Your task to perform on an android device: turn off location history Image 0: 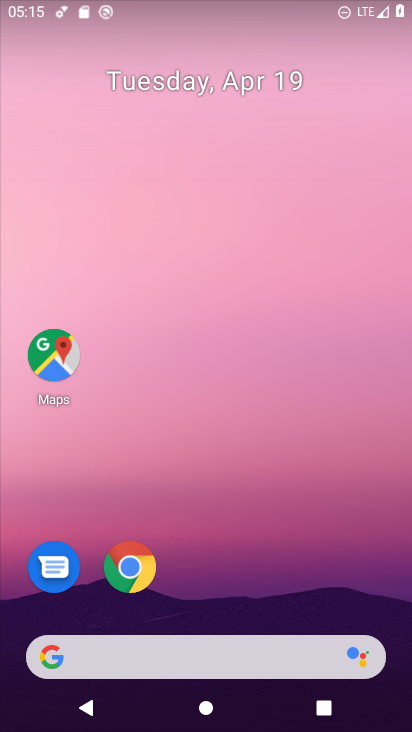
Step 0: drag from (306, 435) to (286, 49)
Your task to perform on an android device: turn off location history Image 1: 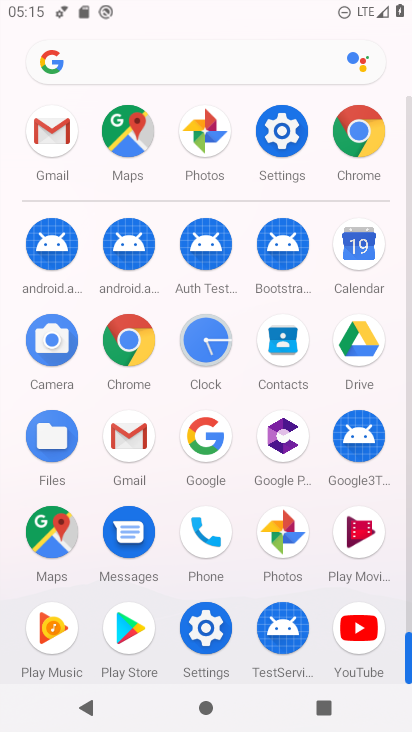
Step 1: click (215, 630)
Your task to perform on an android device: turn off location history Image 2: 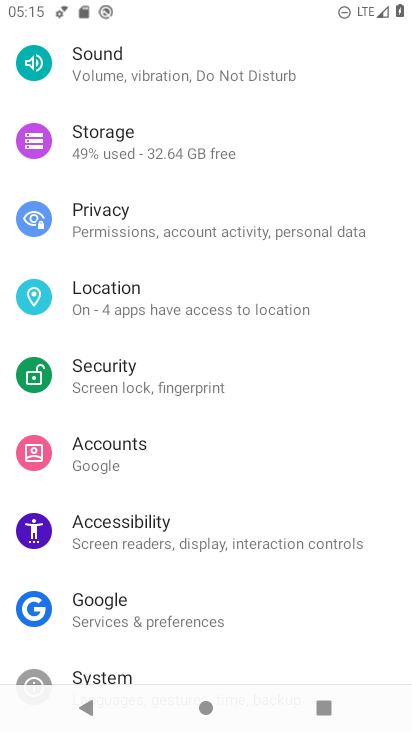
Step 2: drag from (295, 620) to (268, 527)
Your task to perform on an android device: turn off location history Image 3: 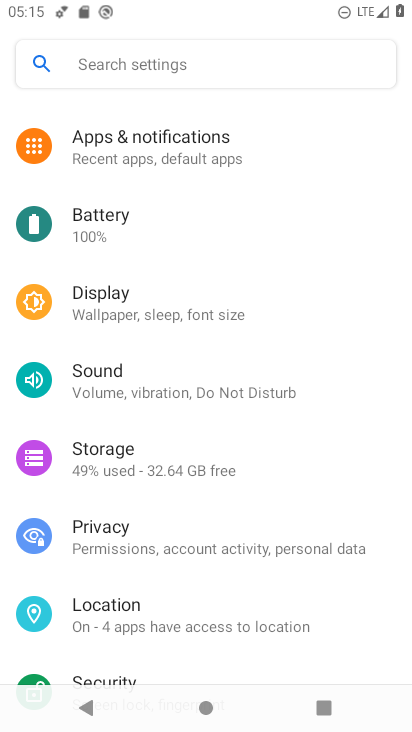
Step 3: click (173, 616)
Your task to perform on an android device: turn off location history Image 4: 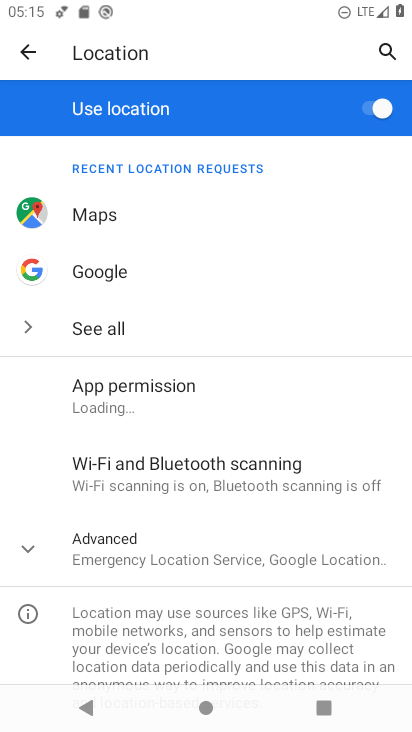
Step 4: click (169, 543)
Your task to perform on an android device: turn off location history Image 5: 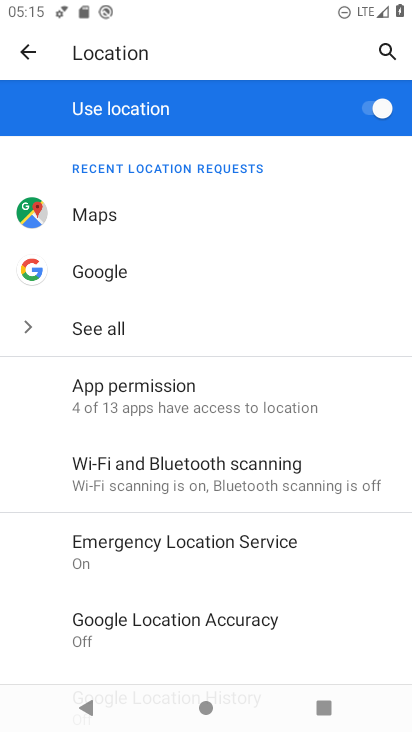
Step 5: click (252, 636)
Your task to perform on an android device: turn off location history Image 6: 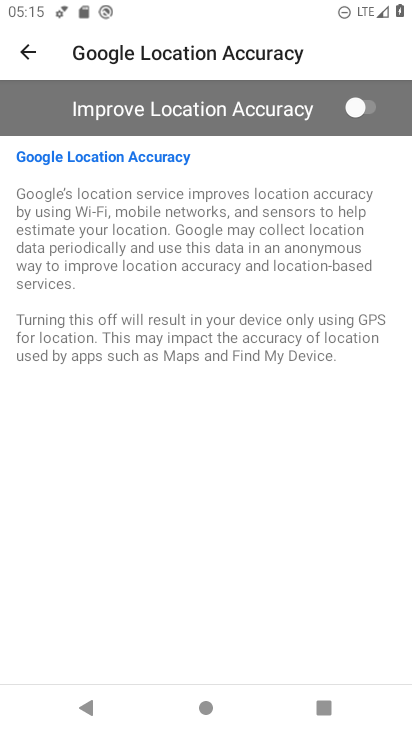
Step 6: click (31, 60)
Your task to perform on an android device: turn off location history Image 7: 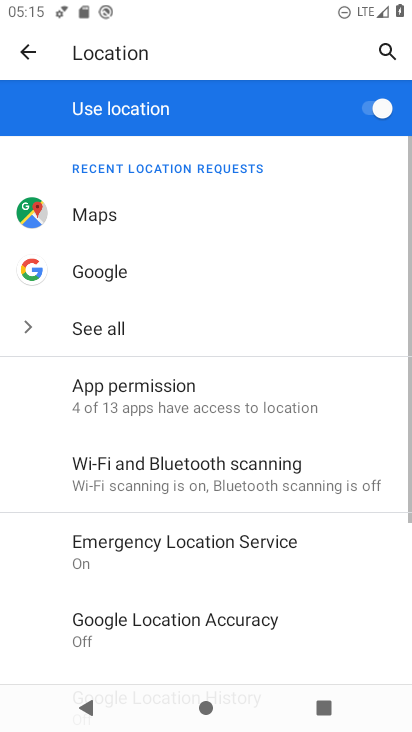
Step 7: drag from (255, 589) to (284, 177)
Your task to perform on an android device: turn off location history Image 8: 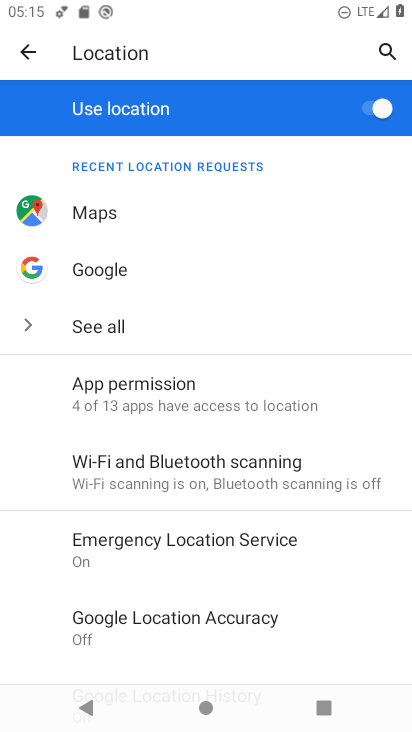
Step 8: drag from (261, 639) to (295, 209)
Your task to perform on an android device: turn off location history Image 9: 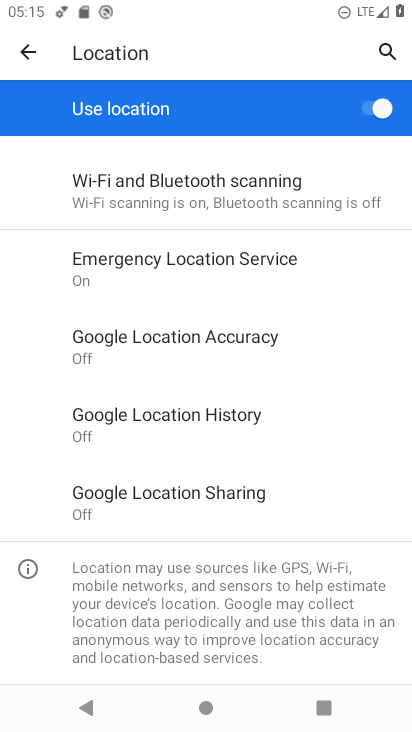
Step 9: click (235, 427)
Your task to perform on an android device: turn off location history Image 10: 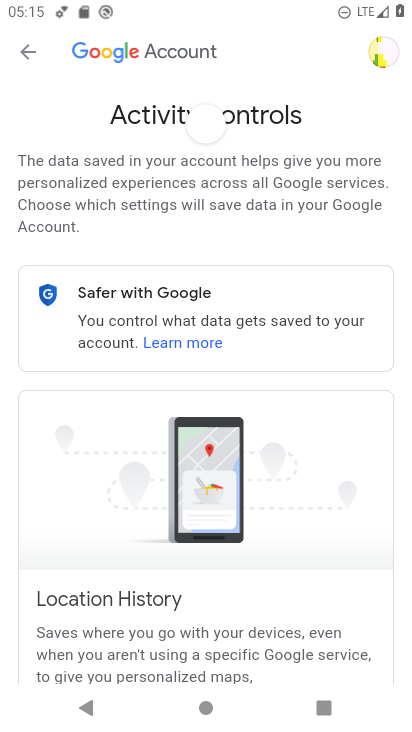
Step 10: drag from (294, 606) to (349, 99)
Your task to perform on an android device: turn off location history Image 11: 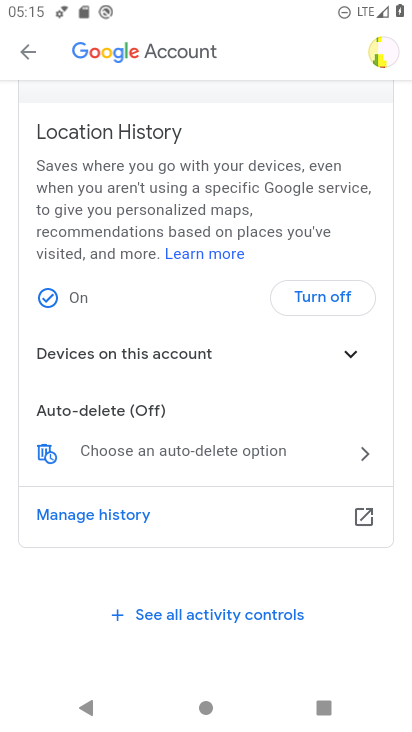
Step 11: click (328, 291)
Your task to perform on an android device: turn off location history Image 12: 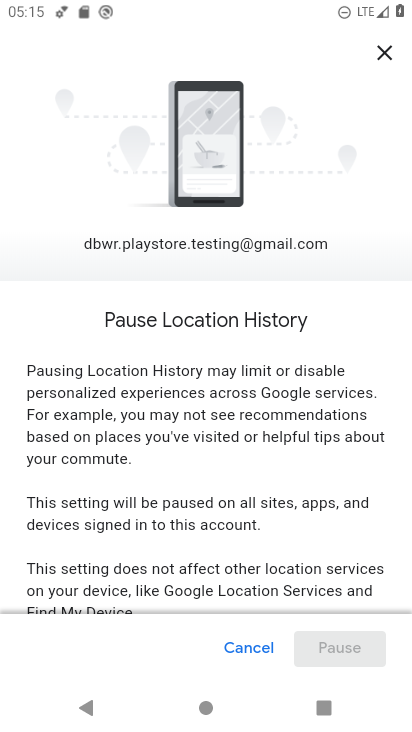
Step 12: drag from (310, 563) to (339, 111)
Your task to perform on an android device: turn off location history Image 13: 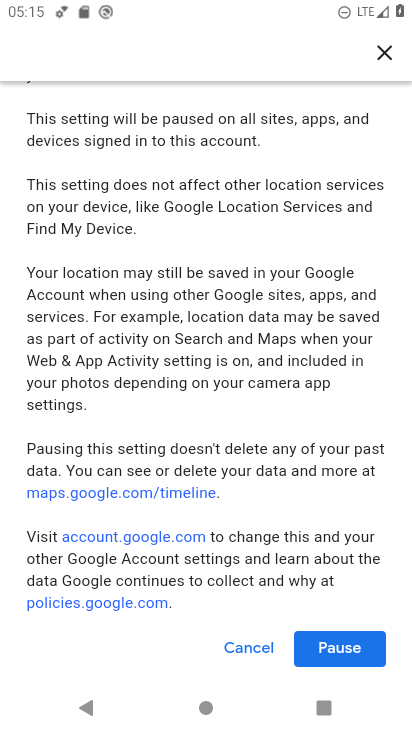
Step 13: click (358, 661)
Your task to perform on an android device: turn off location history Image 14: 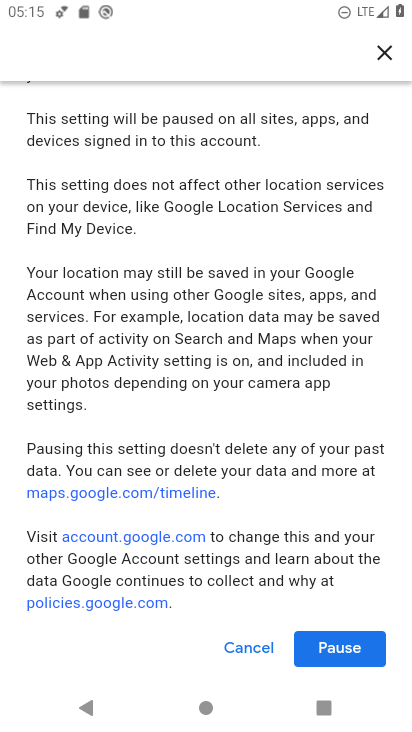
Step 14: click (358, 661)
Your task to perform on an android device: turn off location history Image 15: 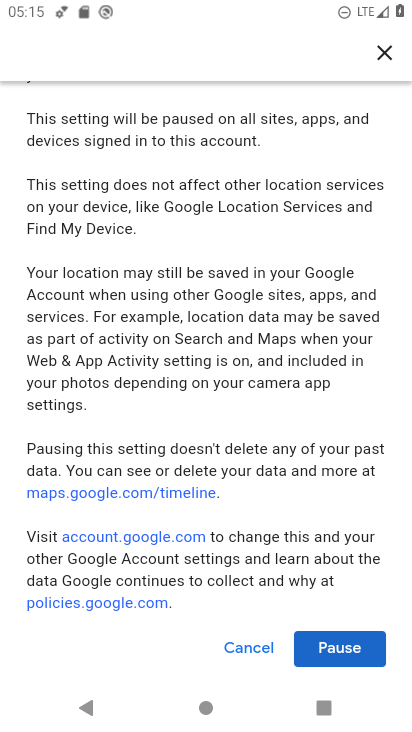
Step 15: click (358, 661)
Your task to perform on an android device: turn off location history Image 16: 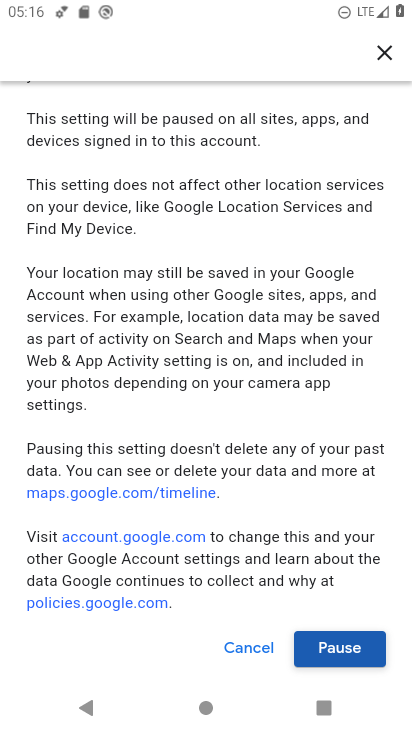
Step 16: click (357, 656)
Your task to perform on an android device: turn off location history Image 17: 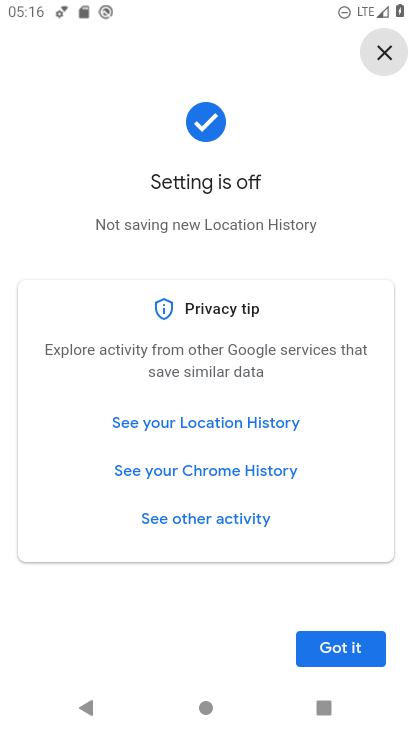
Step 17: task complete